Your task to perform on an android device: choose inbox layout in the gmail app Image 0: 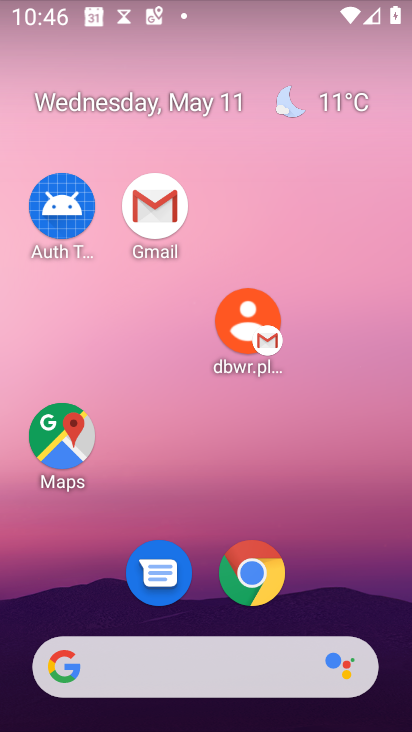
Step 0: drag from (401, 486) to (233, 132)
Your task to perform on an android device: choose inbox layout in the gmail app Image 1: 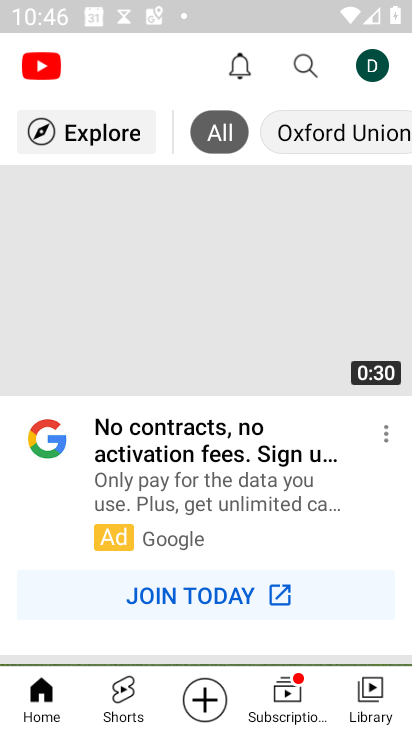
Step 1: press back button
Your task to perform on an android device: choose inbox layout in the gmail app Image 2: 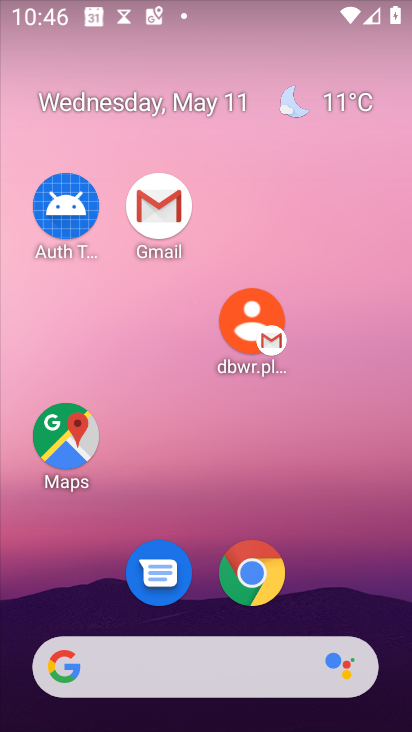
Step 2: drag from (330, 529) to (205, 20)
Your task to perform on an android device: choose inbox layout in the gmail app Image 3: 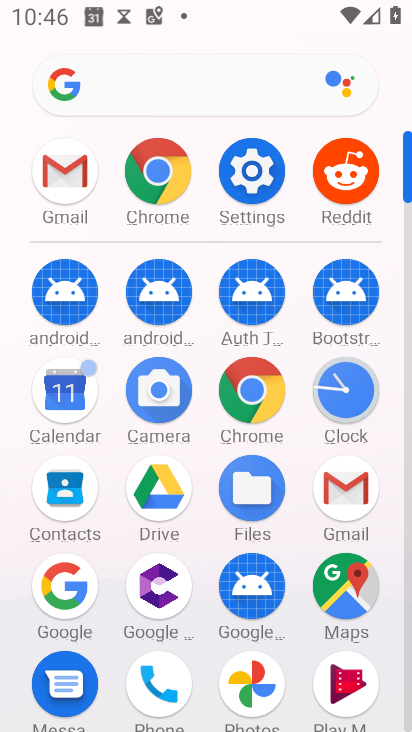
Step 3: click (343, 471)
Your task to perform on an android device: choose inbox layout in the gmail app Image 4: 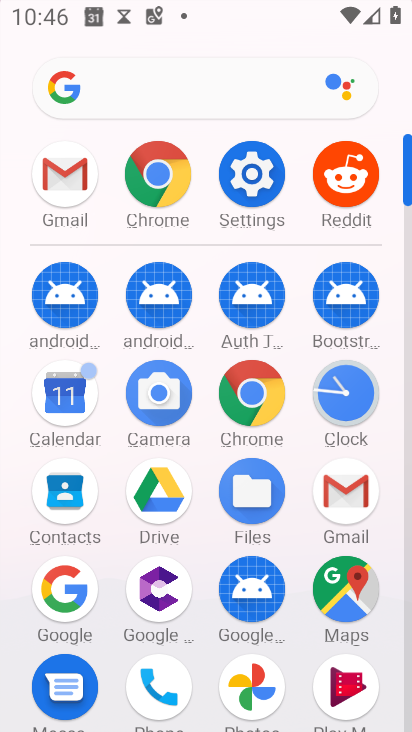
Step 4: click (350, 486)
Your task to perform on an android device: choose inbox layout in the gmail app Image 5: 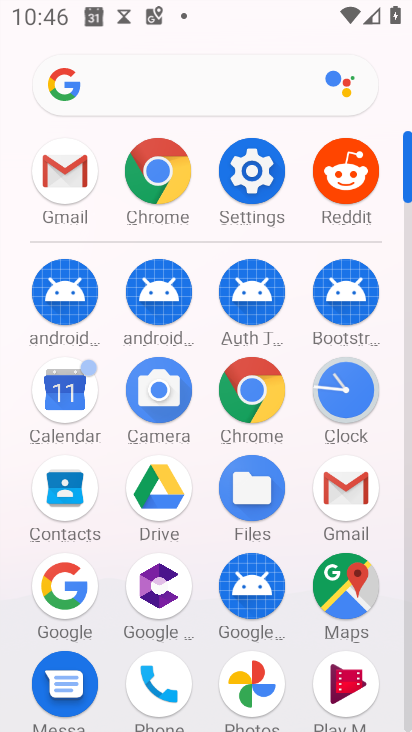
Step 5: click (350, 486)
Your task to perform on an android device: choose inbox layout in the gmail app Image 6: 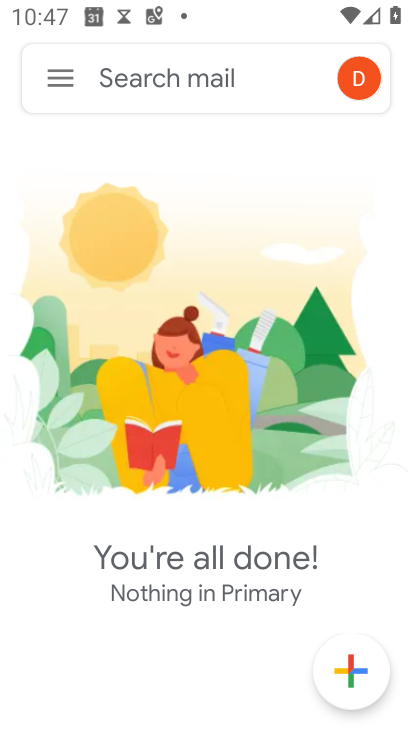
Step 6: click (68, 73)
Your task to perform on an android device: choose inbox layout in the gmail app Image 7: 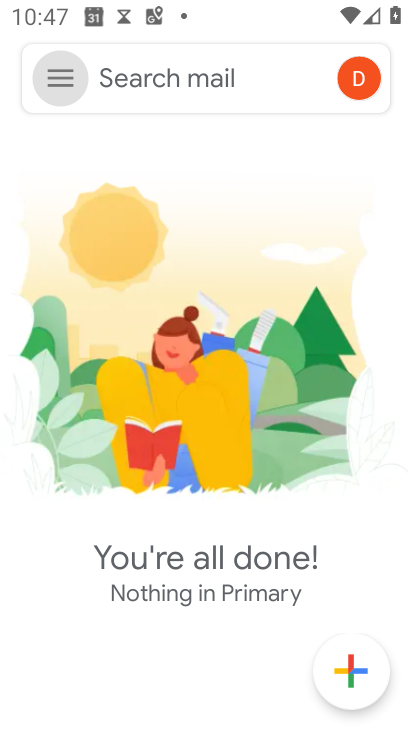
Step 7: click (68, 73)
Your task to perform on an android device: choose inbox layout in the gmail app Image 8: 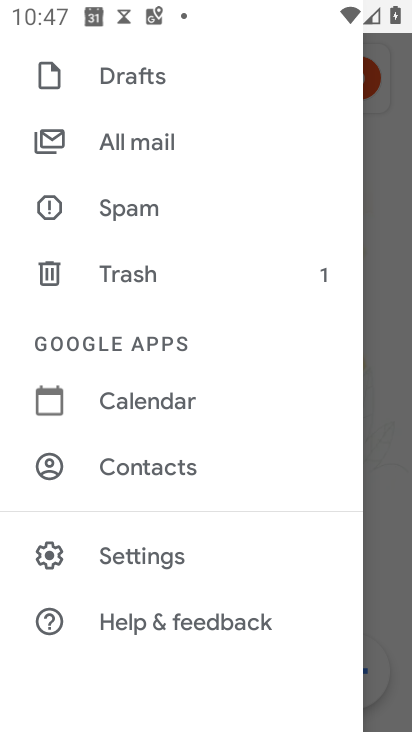
Step 8: click (111, 151)
Your task to perform on an android device: choose inbox layout in the gmail app Image 9: 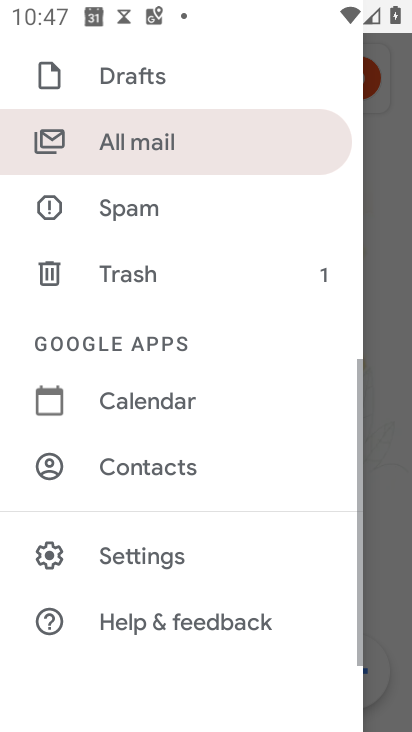
Step 9: click (113, 144)
Your task to perform on an android device: choose inbox layout in the gmail app Image 10: 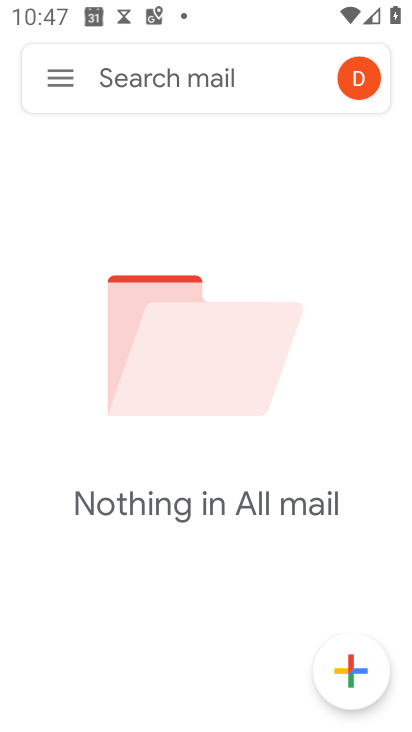
Step 10: task complete